Your task to perform on an android device: delete the emails in spam in the gmail app Image 0: 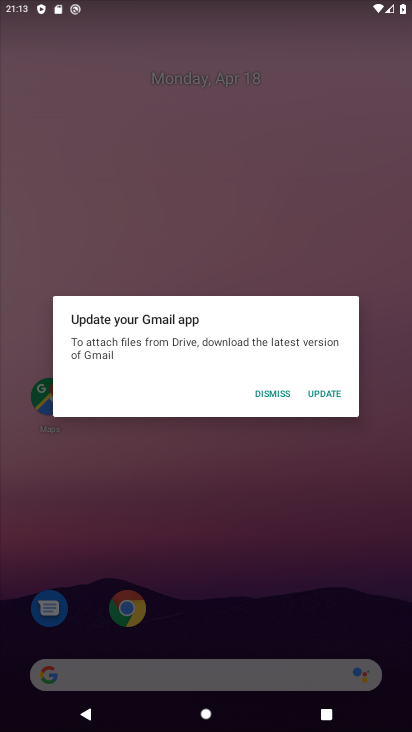
Step 0: press home button
Your task to perform on an android device: delete the emails in spam in the gmail app Image 1: 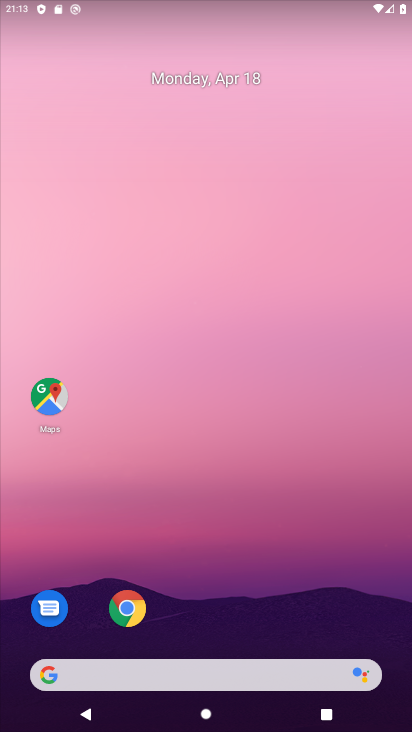
Step 1: drag from (234, 577) to (215, 224)
Your task to perform on an android device: delete the emails in spam in the gmail app Image 2: 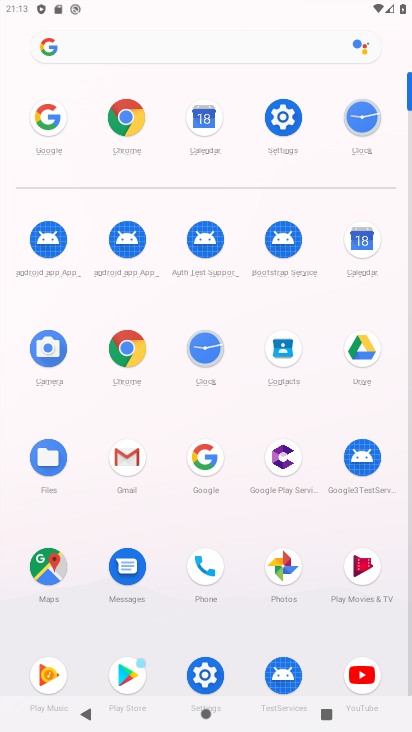
Step 2: click (122, 457)
Your task to perform on an android device: delete the emails in spam in the gmail app Image 3: 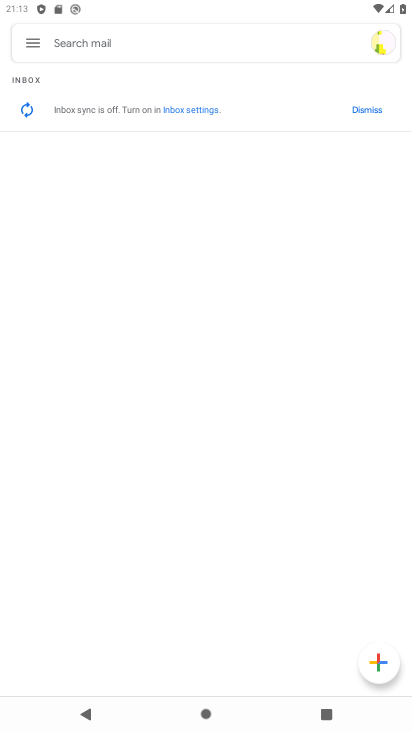
Step 3: click (31, 39)
Your task to perform on an android device: delete the emails in spam in the gmail app Image 4: 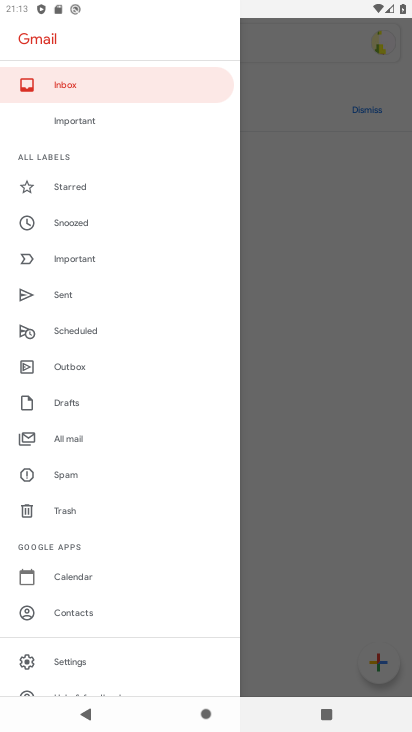
Step 4: click (65, 472)
Your task to perform on an android device: delete the emails in spam in the gmail app Image 5: 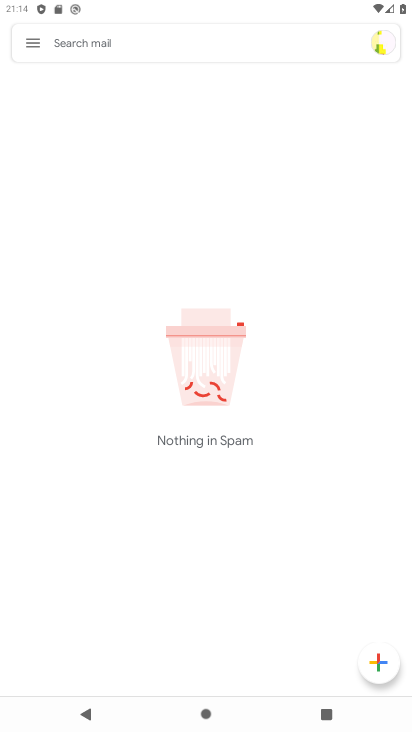
Step 5: task complete